Your task to perform on an android device: Open Chrome and go to the settings page Image 0: 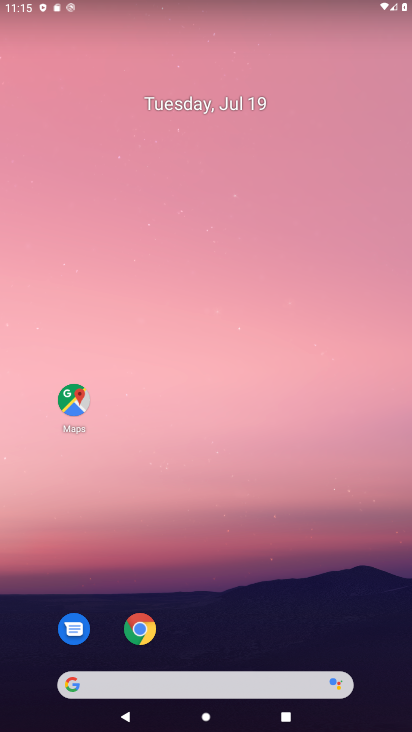
Step 0: drag from (300, 622) to (322, 132)
Your task to perform on an android device: Open Chrome and go to the settings page Image 1: 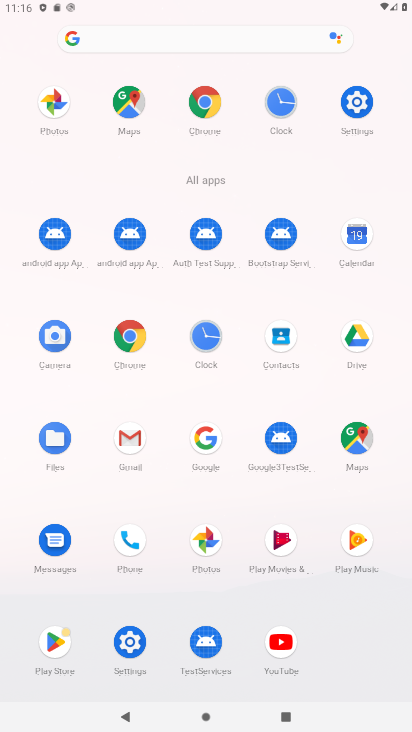
Step 1: click (136, 341)
Your task to perform on an android device: Open Chrome and go to the settings page Image 2: 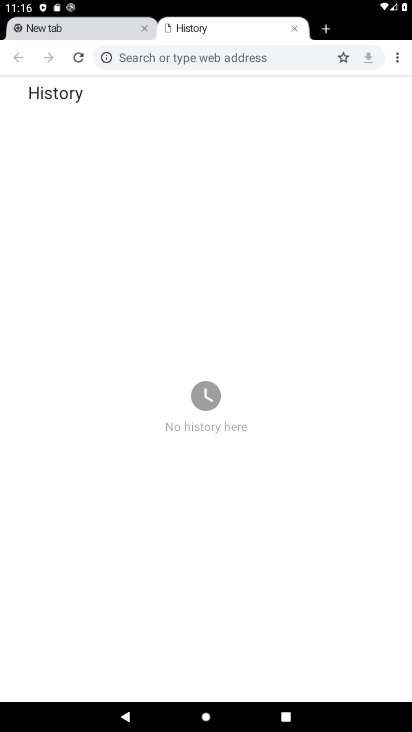
Step 2: click (400, 58)
Your task to perform on an android device: Open Chrome and go to the settings page Image 3: 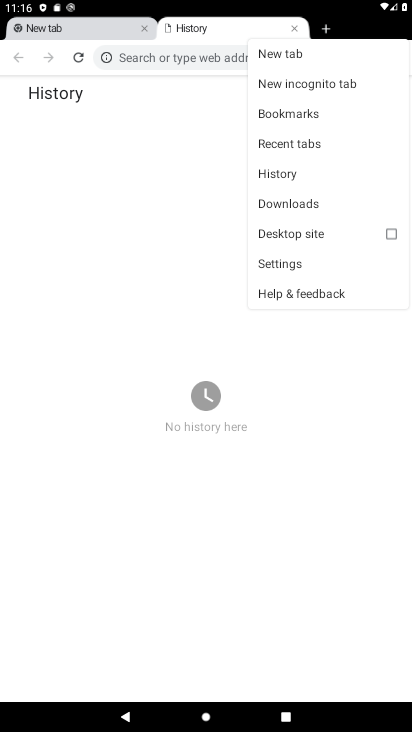
Step 3: click (311, 266)
Your task to perform on an android device: Open Chrome and go to the settings page Image 4: 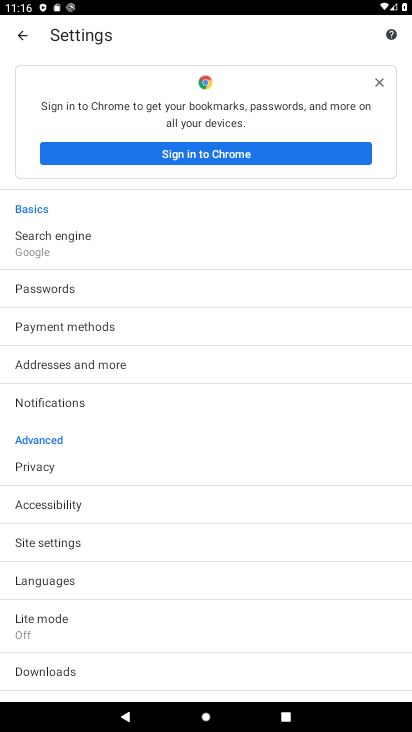
Step 4: task complete